Your task to perform on an android device: turn off location Image 0: 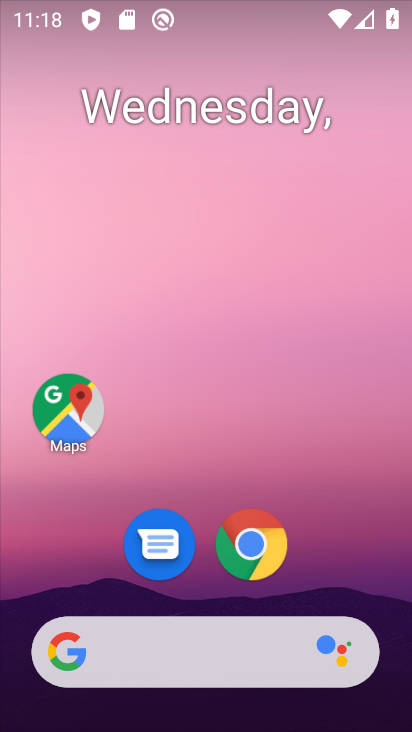
Step 0: drag from (382, 577) to (313, 0)
Your task to perform on an android device: turn off location Image 1: 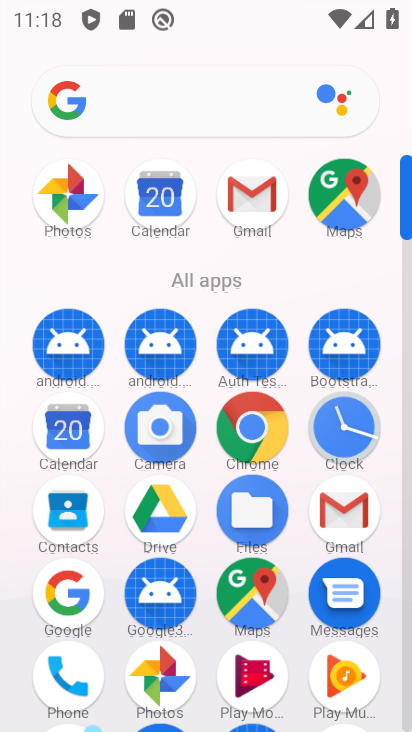
Step 1: click (407, 606)
Your task to perform on an android device: turn off location Image 2: 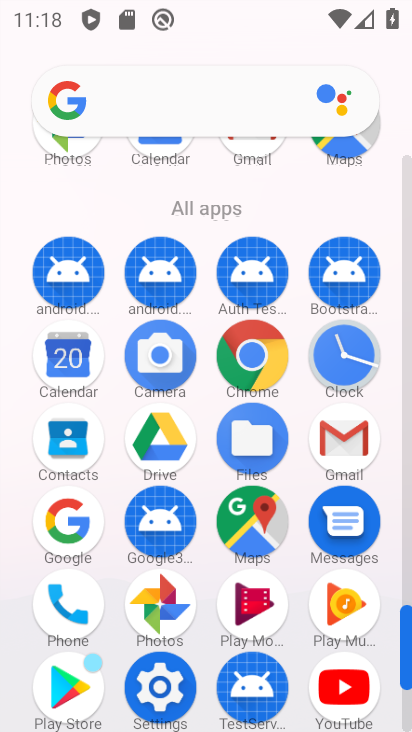
Step 2: click (164, 675)
Your task to perform on an android device: turn off location Image 3: 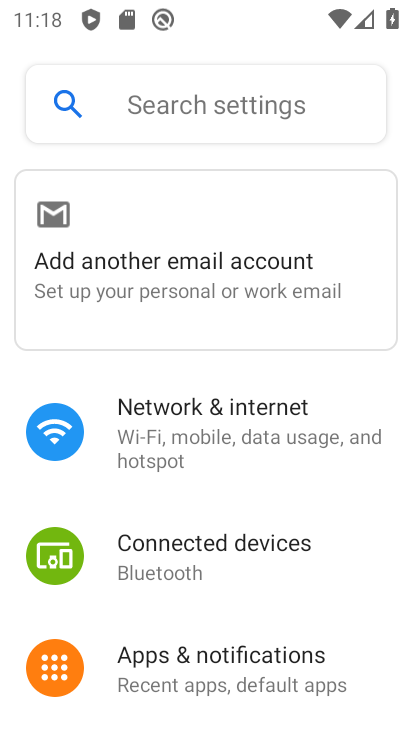
Step 3: drag from (337, 608) to (308, 48)
Your task to perform on an android device: turn off location Image 4: 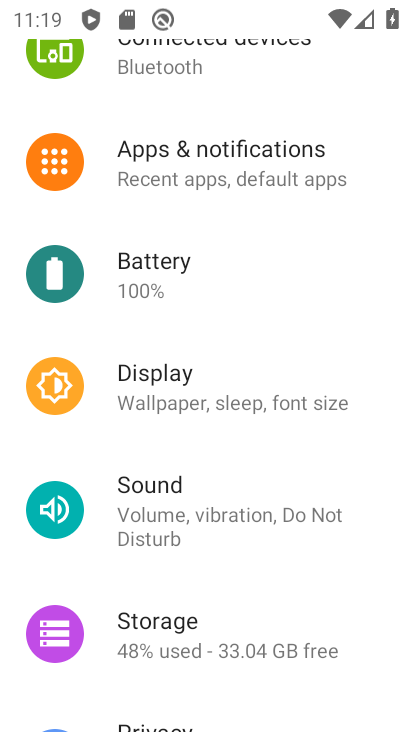
Step 4: drag from (326, 619) to (226, 1)
Your task to perform on an android device: turn off location Image 5: 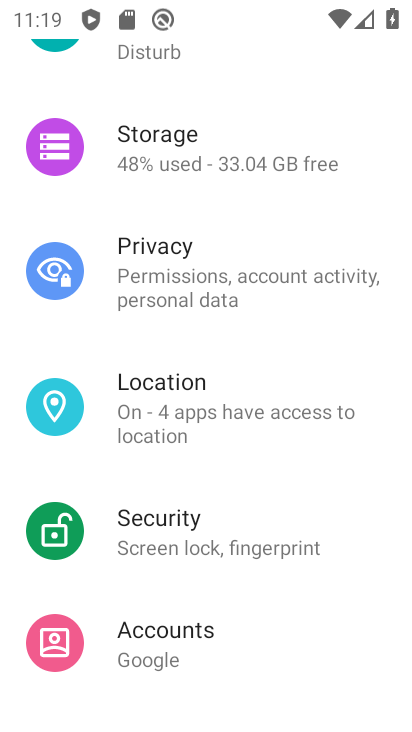
Step 5: click (197, 411)
Your task to perform on an android device: turn off location Image 6: 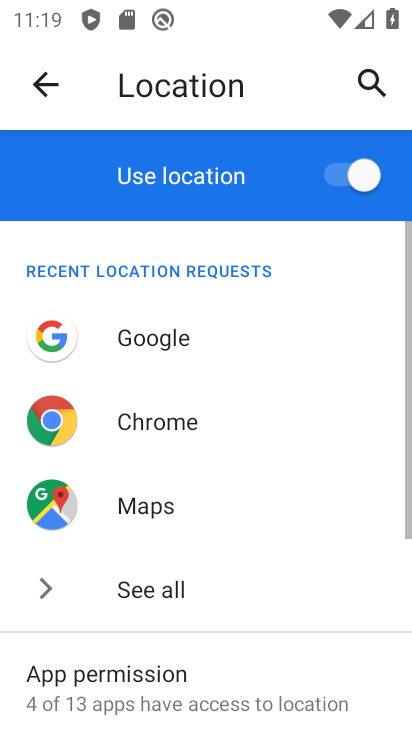
Step 6: click (342, 178)
Your task to perform on an android device: turn off location Image 7: 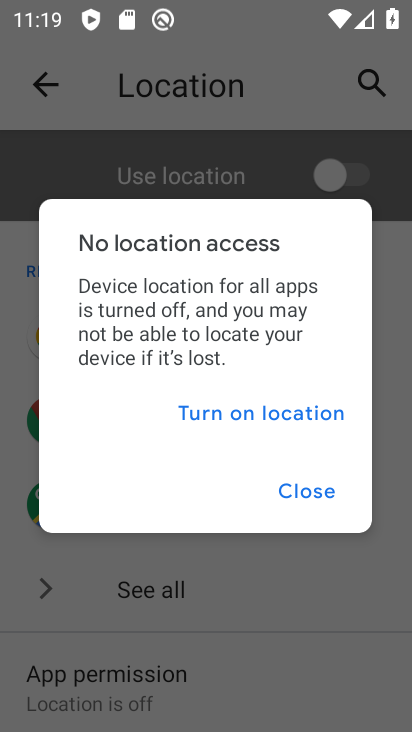
Step 7: click (286, 488)
Your task to perform on an android device: turn off location Image 8: 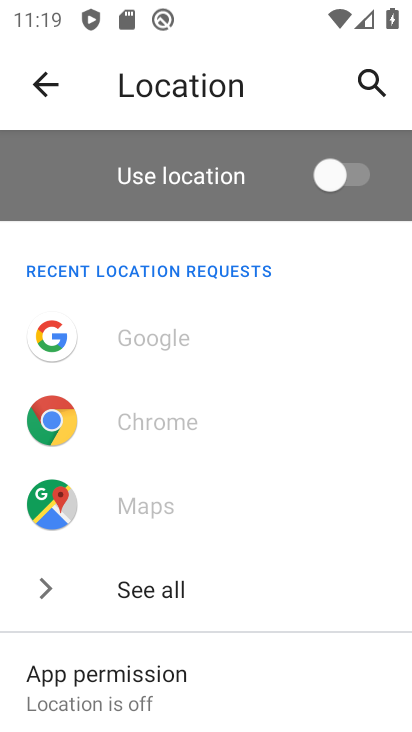
Step 8: task complete